Your task to perform on an android device: turn on showing notifications on the lock screen Image 0: 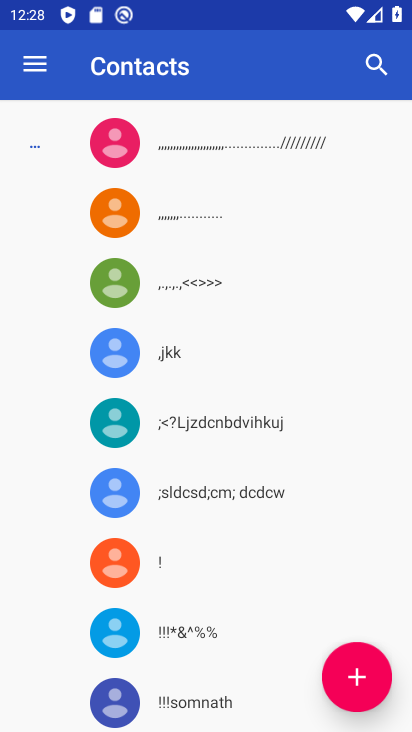
Step 0: press home button
Your task to perform on an android device: turn on showing notifications on the lock screen Image 1: 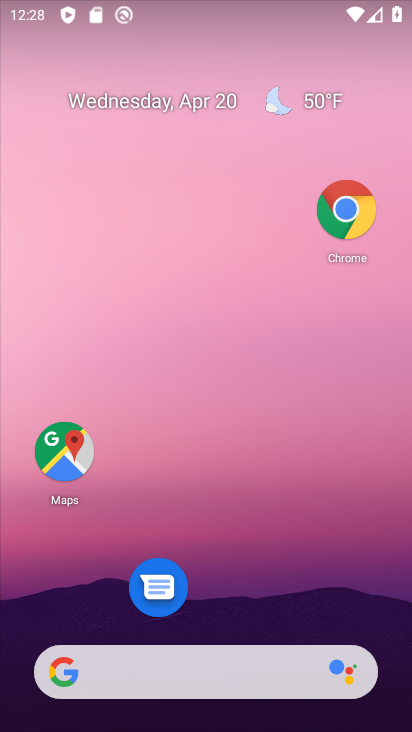
Step 1: drag from (249, 567) to (284, 67)
Your task to perform on an android device: turn on showing notifications on the lock screen Image 2: 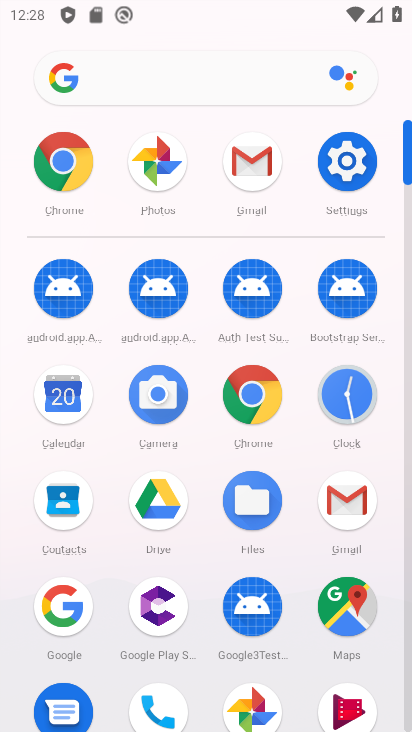
Step 2: click (343, 174)
Your task to perform on an android device: turn on showing notifications on the lock screen Image 3: 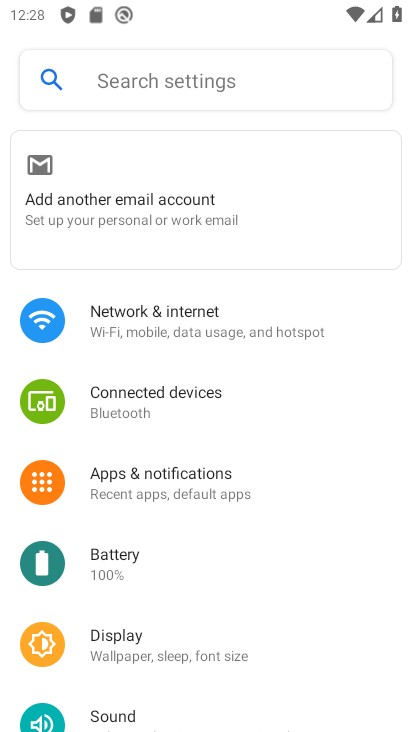
Step 3: click (160, 485)
Your task to perform on an android device: turn on showing notifications on the lock screen Image 4: 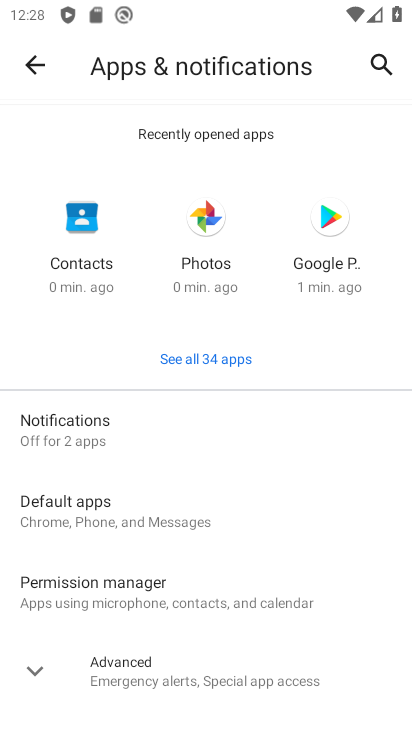
Step 4: drag from (156, 636) to (200, 413)
Your task to perform on an android device: turn on showing notifications on the lock screen Image 5: 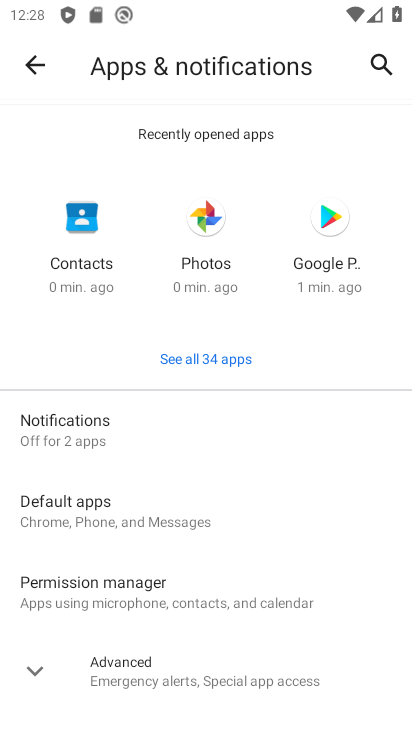
Step 5: click (71, 416)
Your task to perform on an android device: turn on showing notifications on the lock screen Image 6: 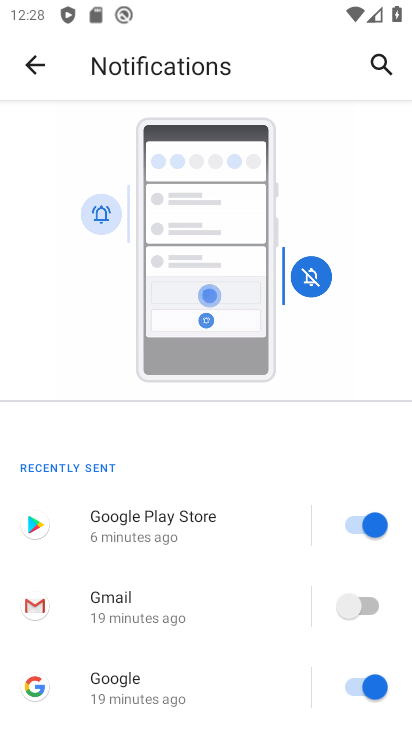
Step 6: drag from (156, 567) to (227, 267)
Your task to perform on an android device: turn on showing notifications on the lock screen Image 7: 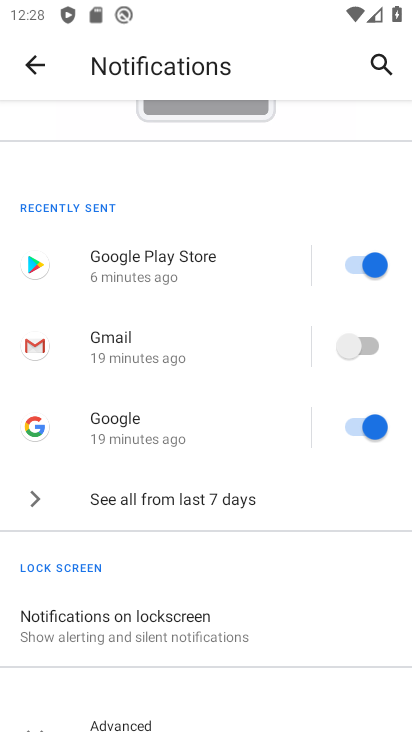
Step 7: click (122, 623)
Your task to perform on an android device: turn on showing notifications on the lock screen Image 8: 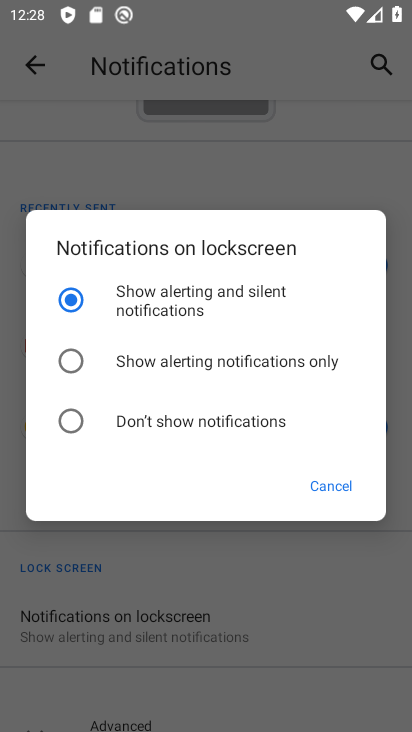
Step 8: task complete